Your task to perform on an android device: turn on the 24-hour format for clock Image 0: 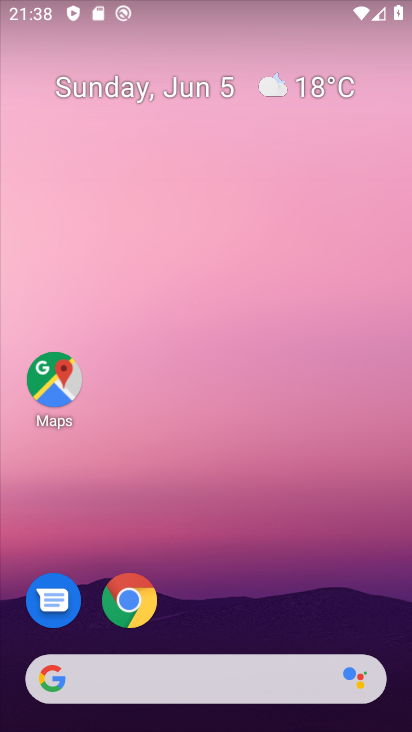
Step 0: drag from (297, 578) to (245, 181)
Your task to perform on an android device: turn on the 24-hour format for clock Image 1: 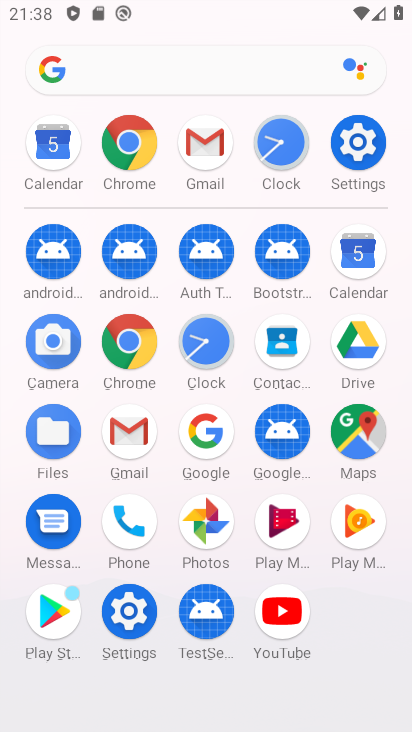
Step 1: click (206, 365)
Your task to perform on an android device: turn on the 24-hour format for clock Image 2: 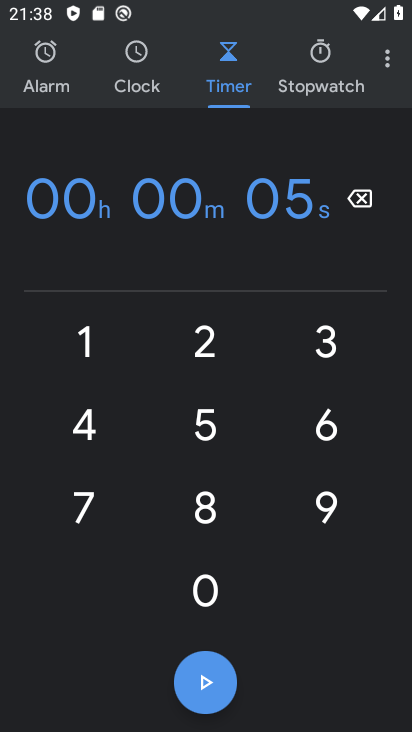
Step 2: click (394, 58)
Your task to perform on an android device: turn on the 24-hour format for clock Image 3: 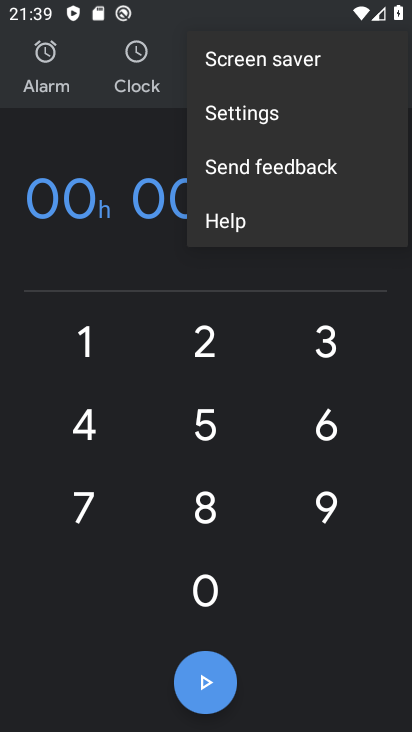
Step 3: click (286, 119)
Your task to perform on an android device: turn on the 24-hour format for clock Image 4: 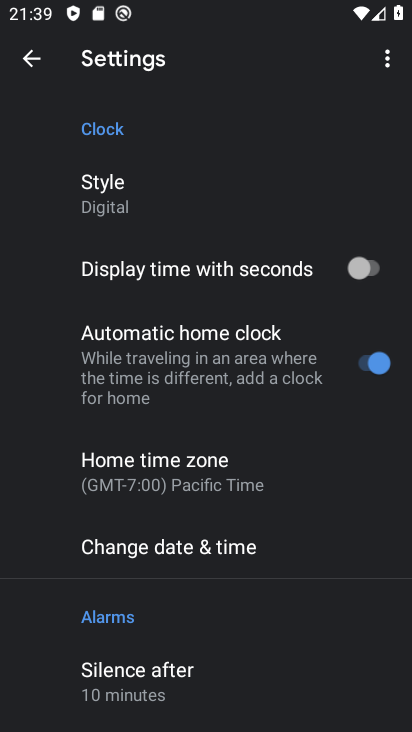
Step 4: click (238, 550)
Your task to perform on an android device: turn on the 24-hour format for clock Image 5: 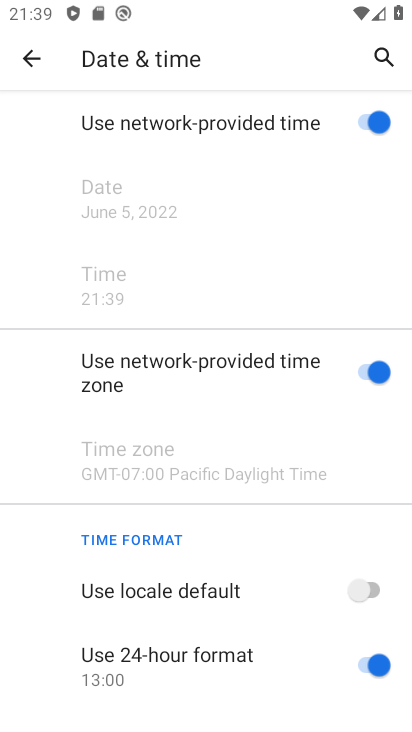
Step 5: task complete